Your task to perform on an android device: turn off data saver in the chrome app Image 0: 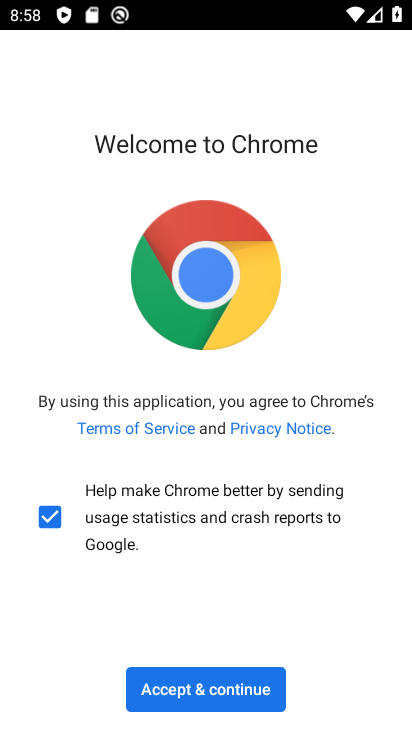
Step 0: click (227, 683)
Your task to perform on an android device: turn off data saver in the chrome app Image 1: 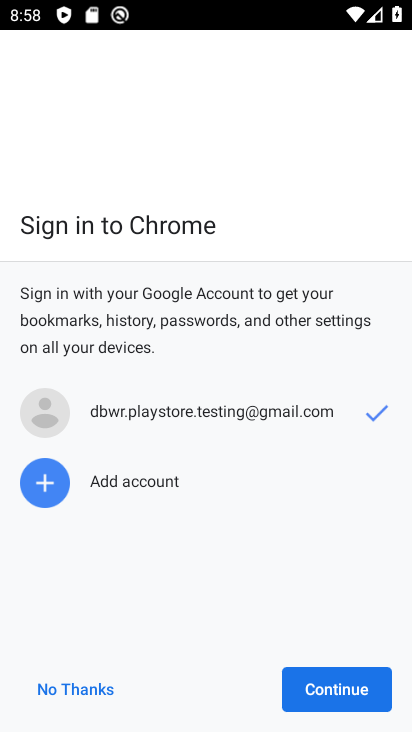
Step 1: click (341, 700)
Your task to perform on an android device: turn off data saver in the chrome app Image 2: 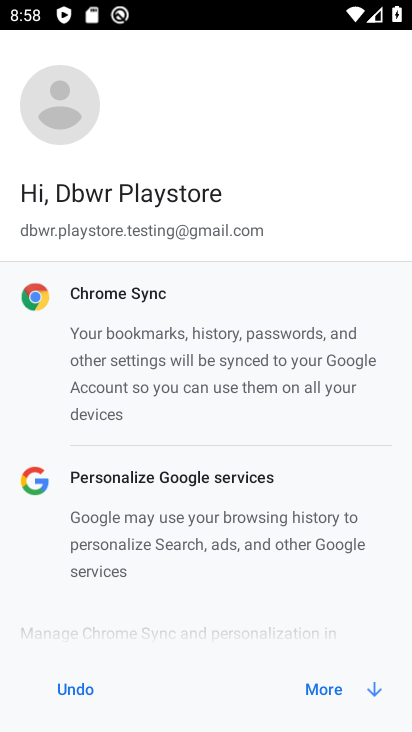
Step 2: click (336, 695)
Your task to perform on an android device: turn off data saver in the chrome app Image 3: 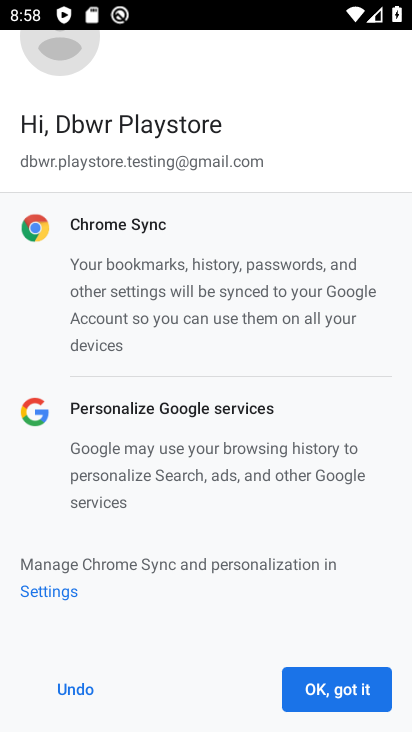
Step 3: click (336, 695)
Your task to perform on an android device: turn off data saver in the chrome app Image 4: 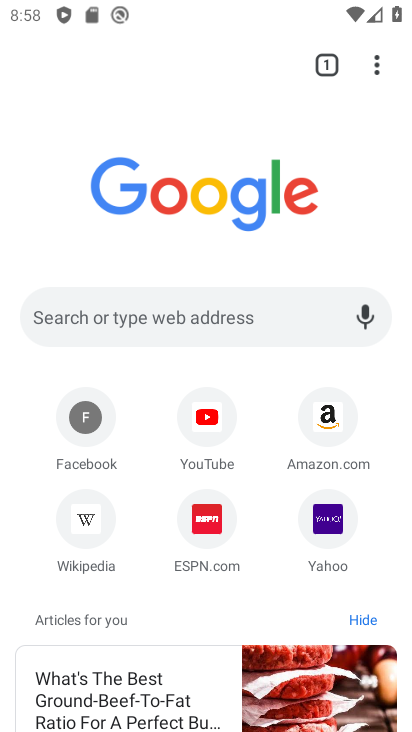
Step 4: drag from (393, 76) to (251, 517)
Your task to perform on an android device: turn off data saver in the chrome app Image 5: 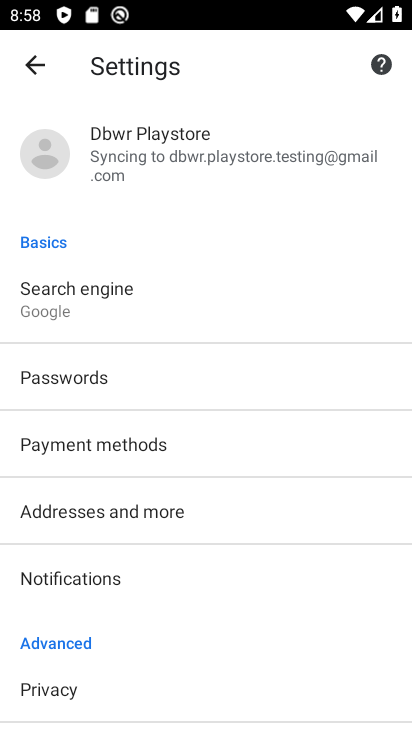
Step 5: drag from (200, 626) to (318, 262)
Your task to perform on an android device: turn off data saver in the chrome app Image 6: 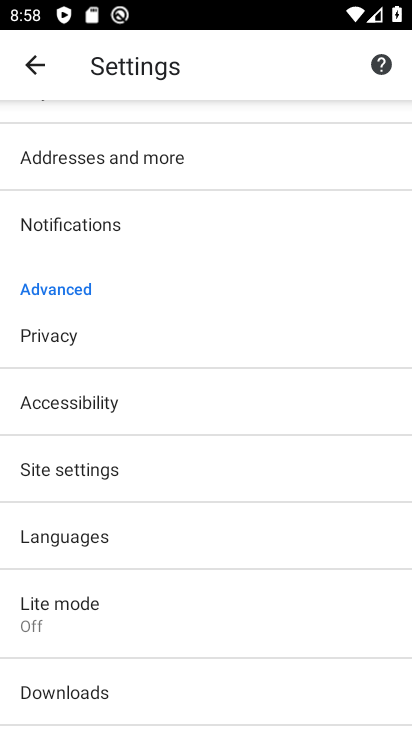
Step 6: drag from (170, 632) to (258, 303)
Your task to perform on an android device: turn off data saver in the chrome app Image 7: 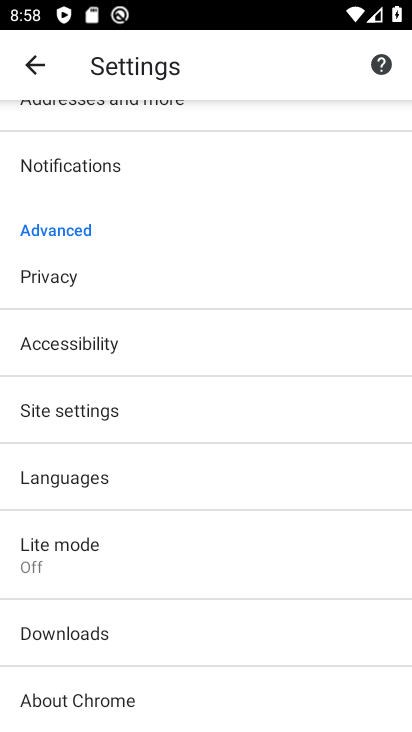
Step 7: drag from (143, 690) to (217, 358)
Your task to perform on an android device: turn off data saver in the chrome app Image 8: 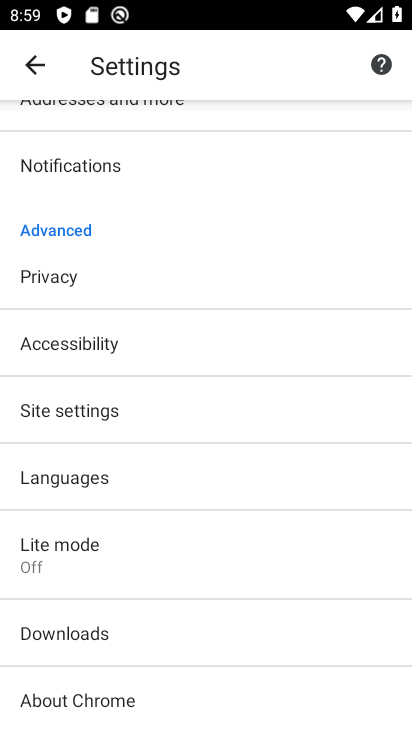
Step 8: drag from (116, 640) to (198, 343)
Your task to perform on an android device: turn off data saver in the chrome app Image 9: 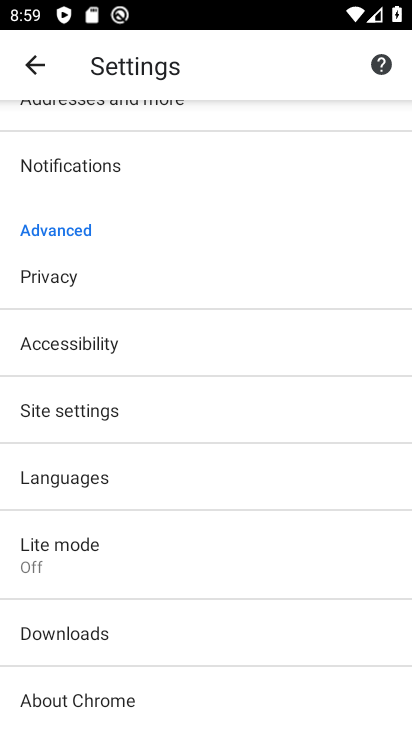
Step 9: drag from (165, 368) to (170, 631)
Your task to perform on an android device: turn off data saver in the chrome app Image 10: 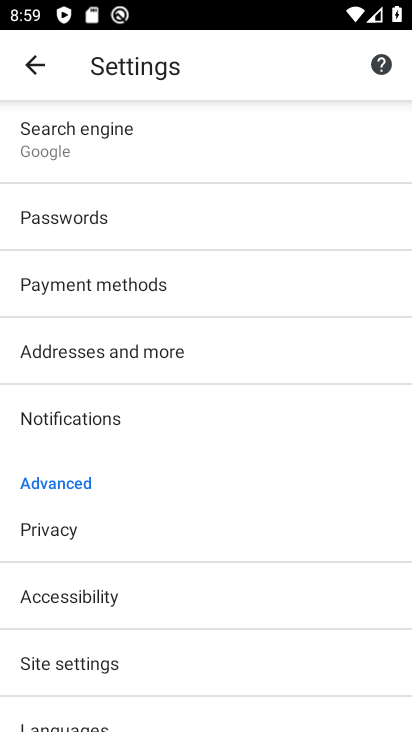
Step 10: drag from (123, 643) to (196, 421)
Your task to perform on an android device: turn off data saver in the chrome app Image 11: 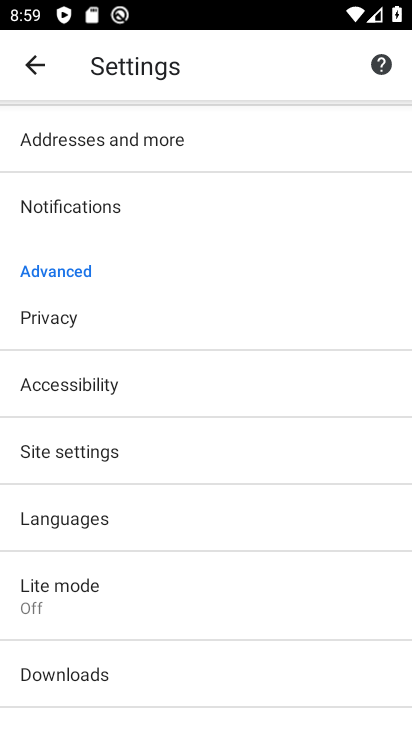
Step 11: click (130, 589)
Your task to perform on an android device: turn off data saver in the chrome app Image 12: 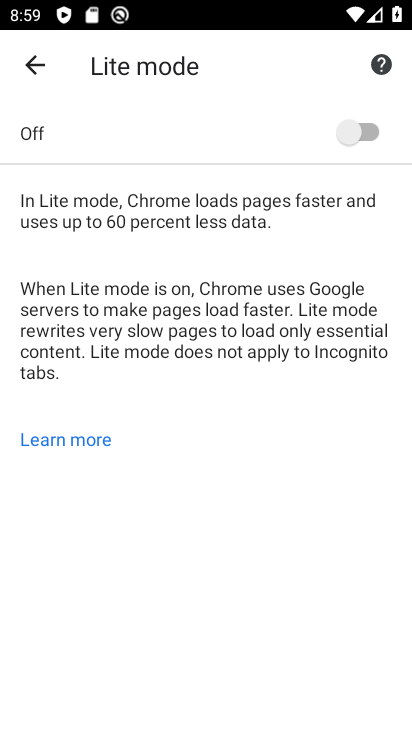
Step 12: task complete